Your task to perform on an android device: choose inbox layout in the gmail app Image 0: 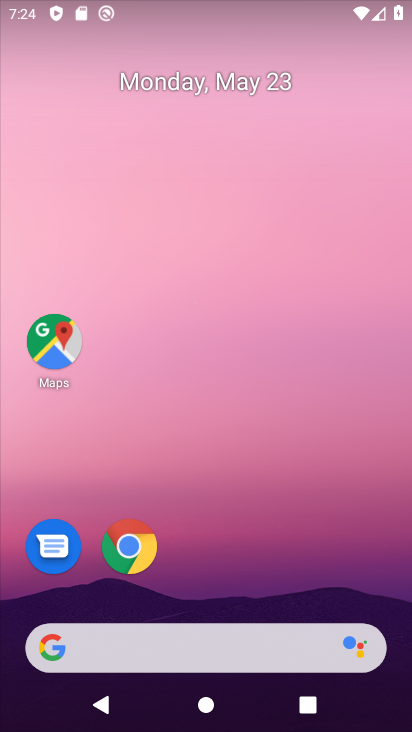
Step 0: drag from (367, 595) to (371, 186)
Your task to perform on an android device: choose inbox layout in the gmail app Image 1: 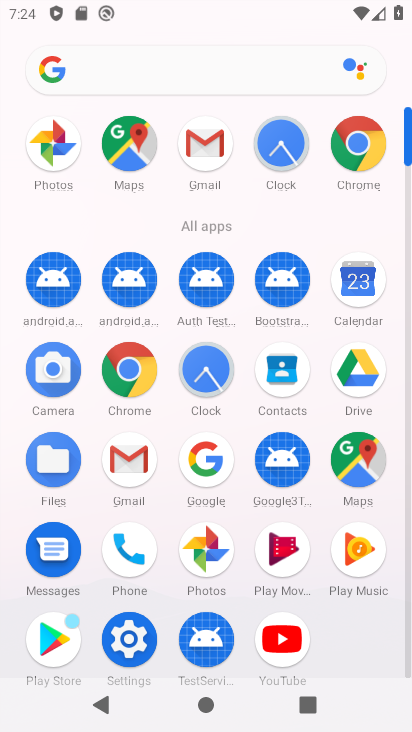
Step 1: click (138, 497)
Your task to perform on an android device: choose inbox layout in the gmail app Image 2: 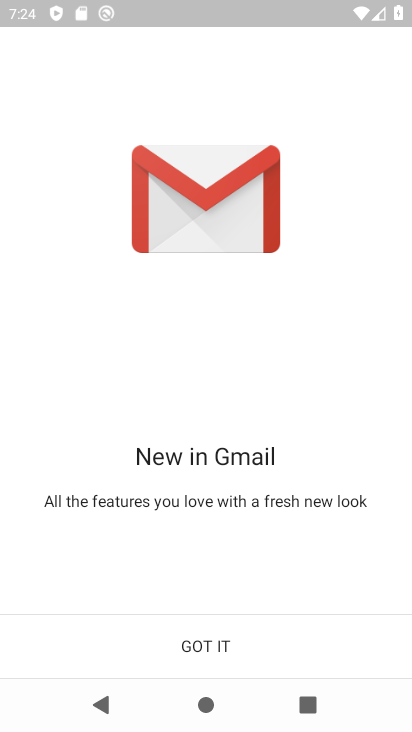
Step 2: click (241, 646)
Your task to perform on an android device: choose inbox layout in the gmail app Image 3: 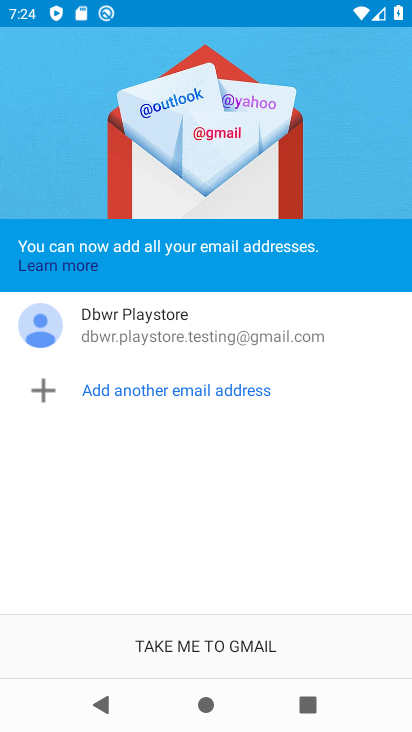
Step 3: click (241, 646)
Your task to perform on an android device: choose inbox layout in the gmail app Image 4: 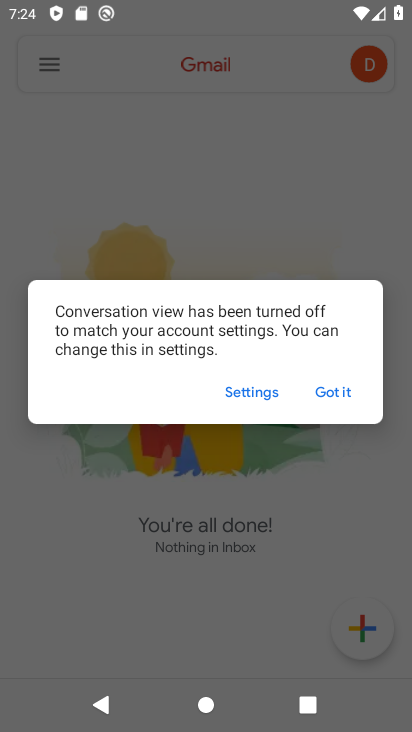
Step 4: click (334, 379)
Your task to perform on an android device: choose inbox layout in the gmail app Image 5: 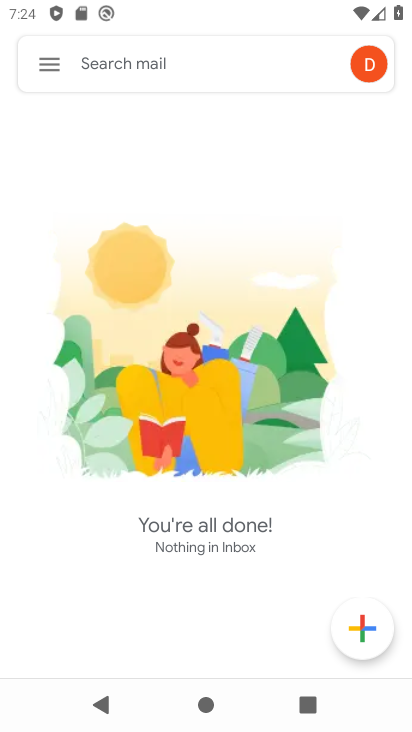
Step 5: click (48, 65)
Your task to perform on an android device: choose inbox layout in the gmail app Image 6: 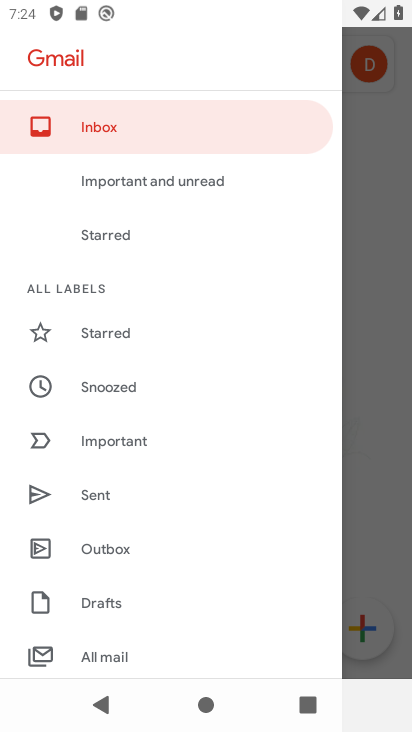
Step 6: drag from (281, 486) to (284, 401)
Your task to perform on an android device: choose inbox layout in the gmail app Image 7: 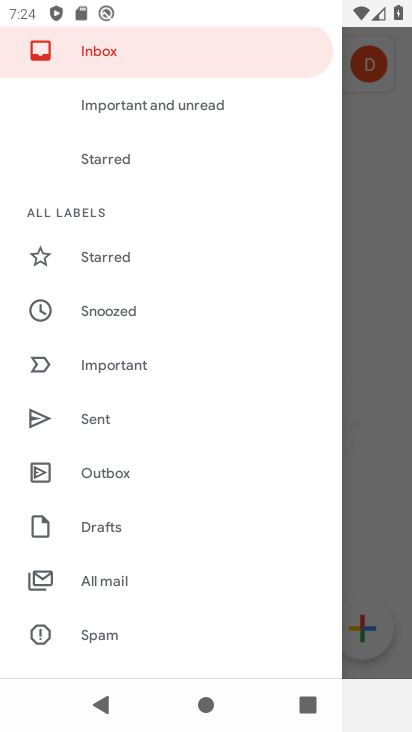
Step 7: drag from (288, 517) to (300, 407)
Your task to perform on an android device: choose inbox layout in the gmail app Image 8: 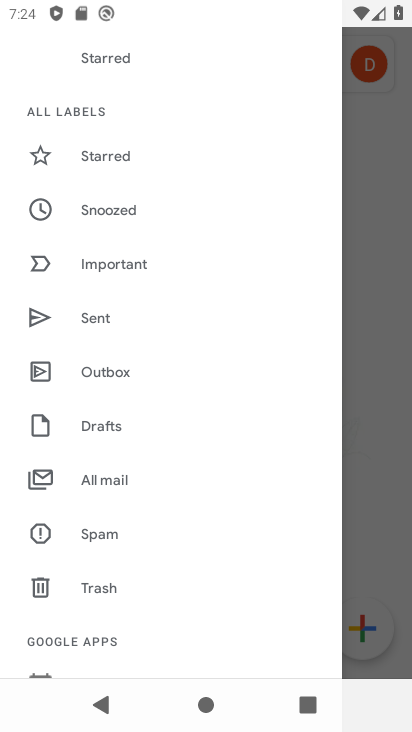
Step 8: drag from (289, 555) to (284, 455)
Your task to perform on an android device: choose inbox layout in the gmail app Image 9: 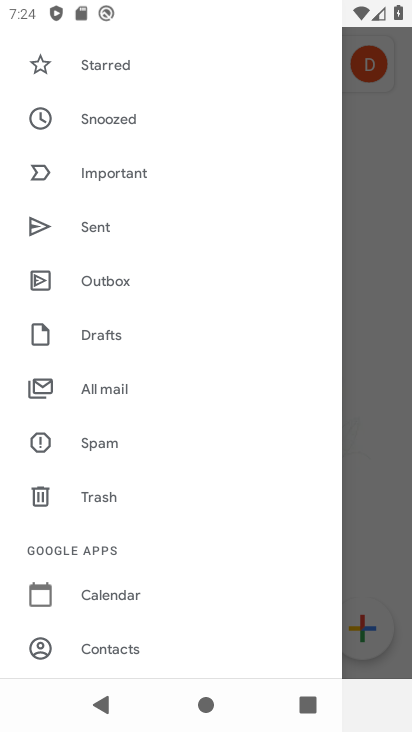
Step 9: drag from (299, 572) to (304, 453)
Your task to perform on an android device: choose inbox layout in the gmail app Image 10: 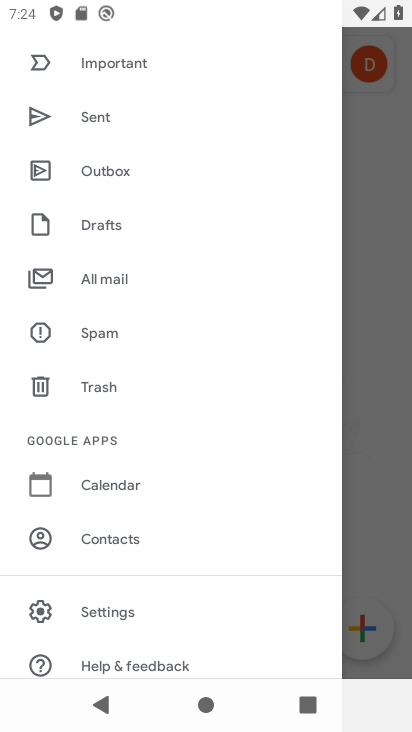
Step 10: drag from (291, 578) to (285, 451)
Your task to perform on an android device: choose inbox layout in the gmail app Image 11: 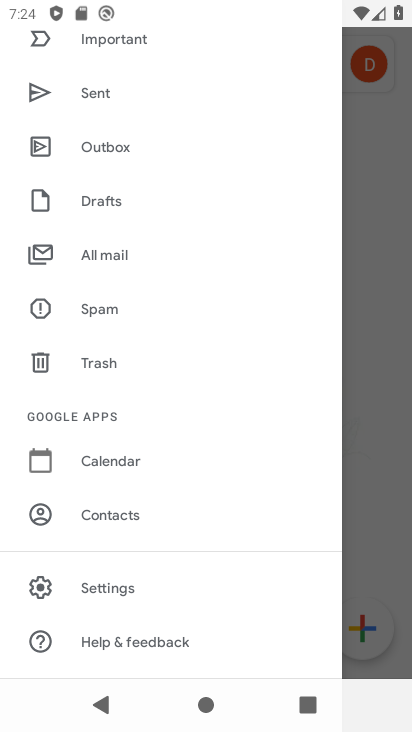
Step 11: click (136, 592)
Your task to perform on an android device: choose inbox layout in the gmail app Image 12: 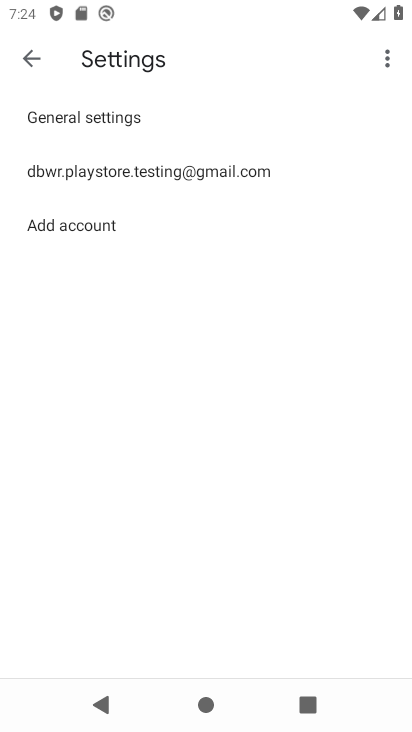
Step 12: click (268, 168)
Your task to perform on an android device: choose inbox layout in the gmail app Image 13: 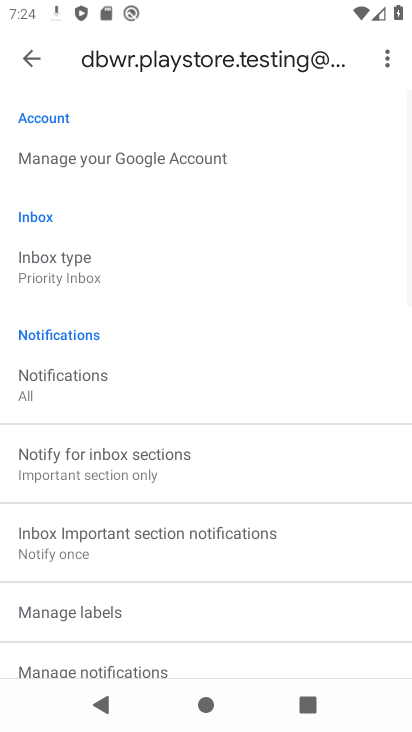
Step 13: drag from (323, 505) to (321, 415)
Your task to perform on an android device: choose inbox layout in the gmail app Image 14: 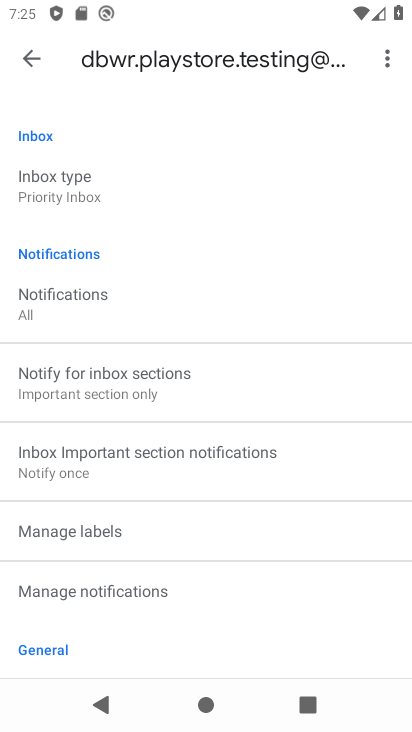
Step 14: drag from (351, 558) to (347, 449)
Your task to perform on an android device: choose inbox layout in the gmail app Image 15: 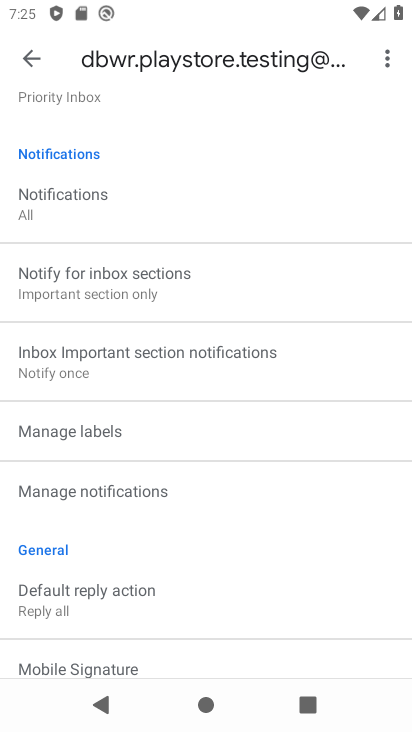
Step 15: drag from (359, 541) to (365, 450)
Your task to perform on an android device: choose inbox layout in the gmail app Image 16: 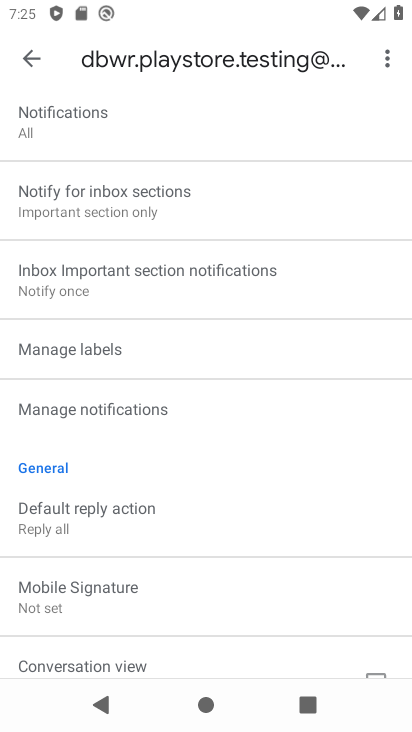
Step 16: drag from (350, 593) to (345, 488)
Your task to perform on an android device: choose inbox layout in the gmail app Image 17: 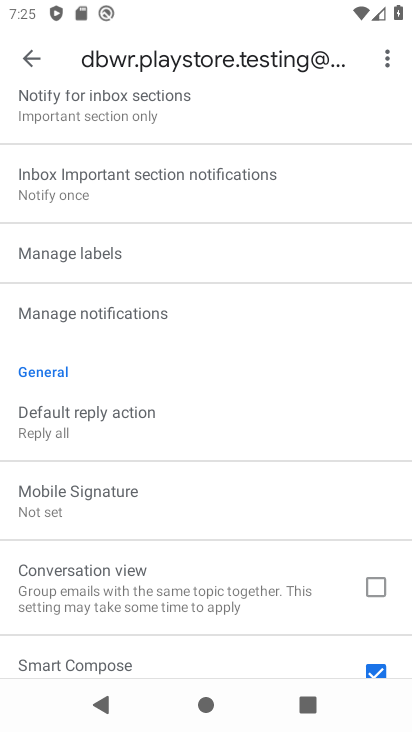
Step 17: drag from (340, 516) to (344, 448)
Your task to perform on an android device: choose inbox layout in the gmail app Image 18: 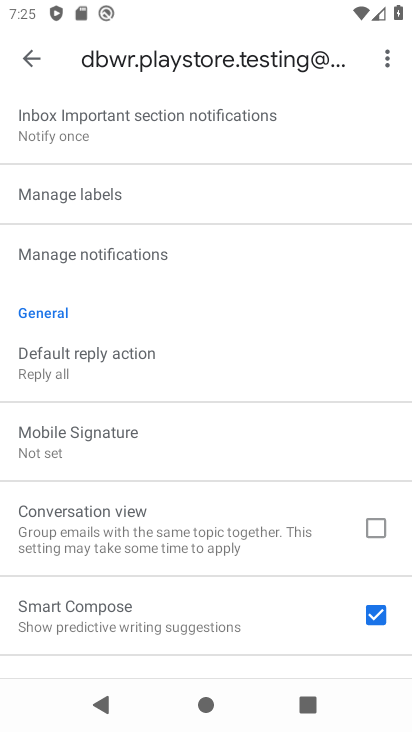
Step 18: drag from (301, 600) to (323, 456)
Your task to perform on an android device: choose inbox layout in the gmail app Image 19: 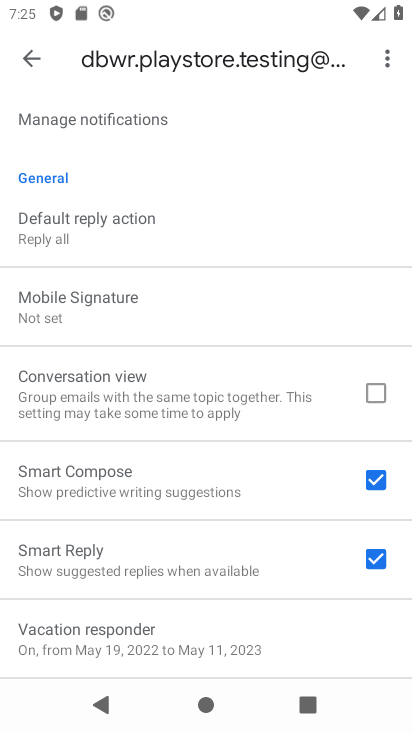
Step 19: drag from (316, 626) to (328, 466)
Your task to perform on an android device: choose inbox layout in the gmail app Image 20: 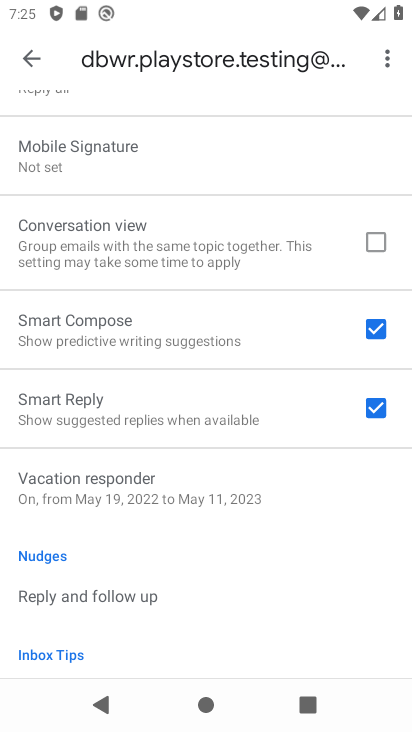
Step 20: drag from (324, 586) to (321, 453)
Your task to perform on an android device: choose inbox layout in the gmail app Image 21: 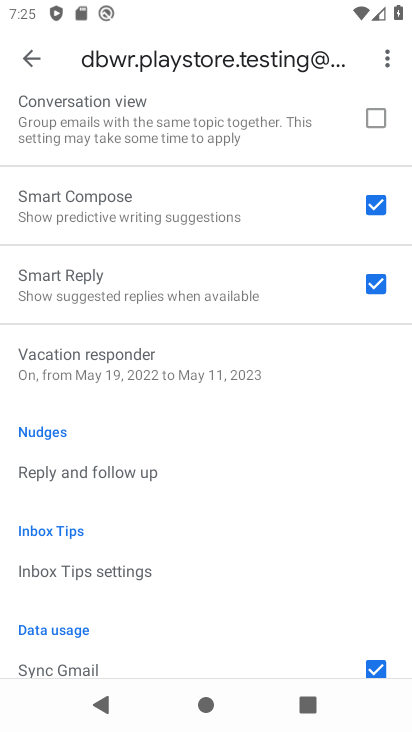
Step 21: drag from (336, 606) to (344, 376)
Your task to perform on an android device: choose inbox layout in the gmail app Image 22: 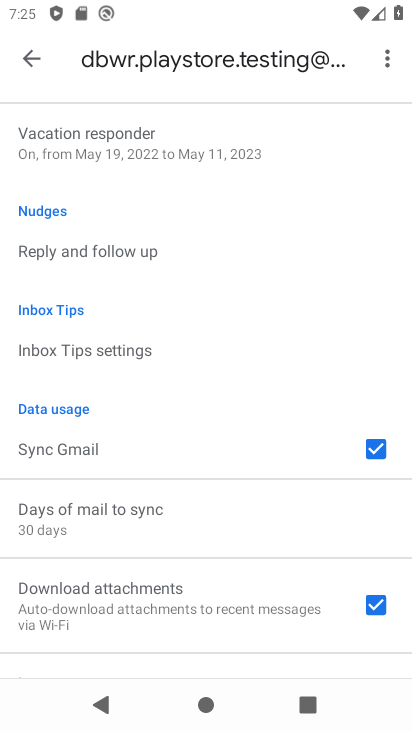
Step 22: drag from (341, 316) to (325, 429)
Your task to perform on an android device: choose inbox layout in the gmail app Image 23: 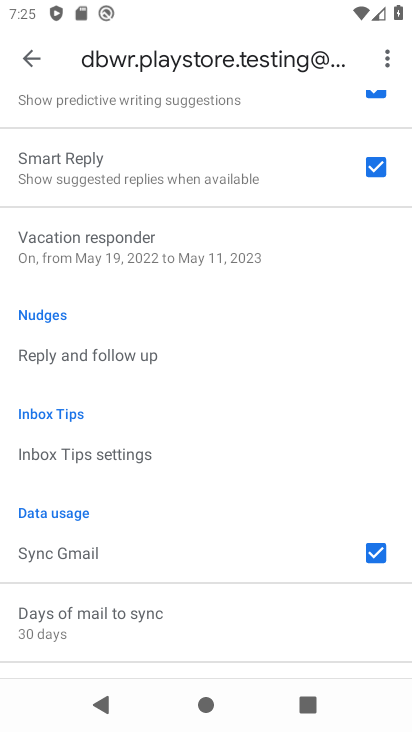
Step 23: drag from (322, 291) to (318, 419)
Your task to perform on an android device: choose inbox layout in the gmail app Image 24: 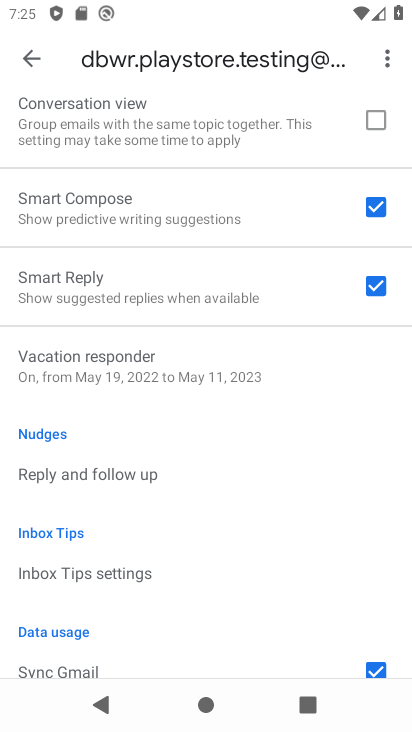
Step 24: drag from (311, 276) to (297, 428)
Your task to perform on an android device: choose inbox layout in the gmail app Image 25: 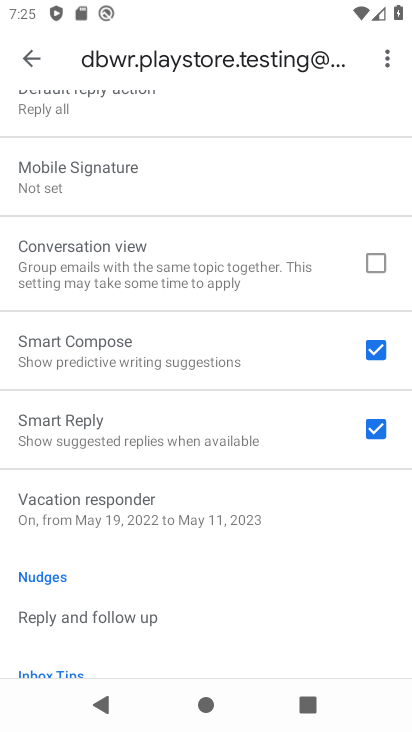
Step 25: drag from (310, 226) to (292, 394)
Your task to perform on an android device: choose inbox layout in the gmail app Image 26: 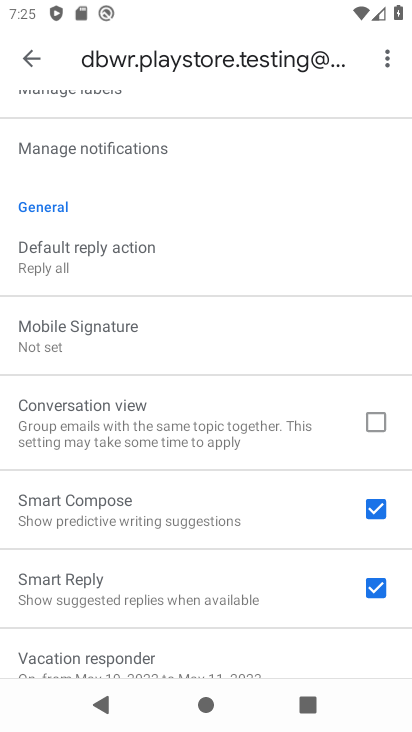
Step 26: drag from (301, 231) to (307, 356)
Your task to perform on an android device: choose inbox layout in the gmail app Image 27: 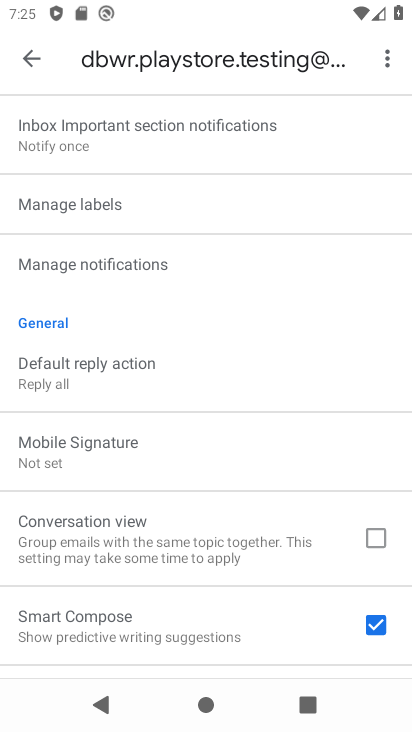
Step 27: drag from (302, 191) to (296, 333)
Your task to perform on an android device: choose inbox layout in the gmail app Image 28: 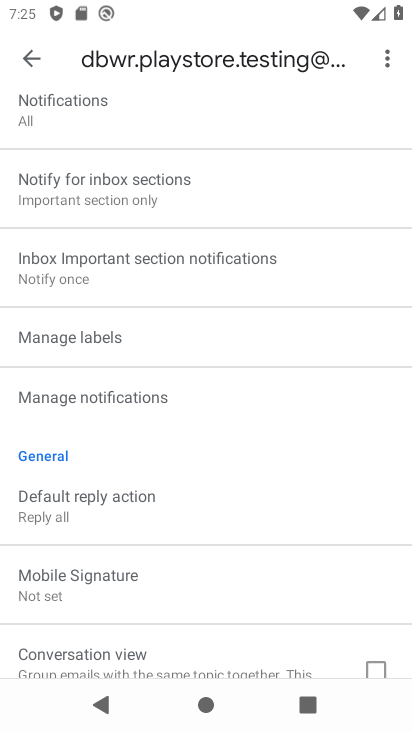
Step 28: drag from (305, 159) to (305, 300)
Your task to perform on an android device: choose inbox layout in the gmail app Image 29: 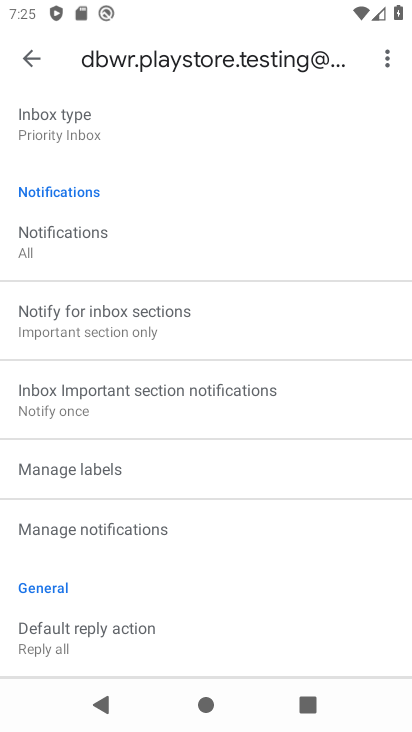
Step 29: drag from (297, 172) to (287, 339)
Your task to perform on an android device: choose inbox layout in the gmail app Image 30: 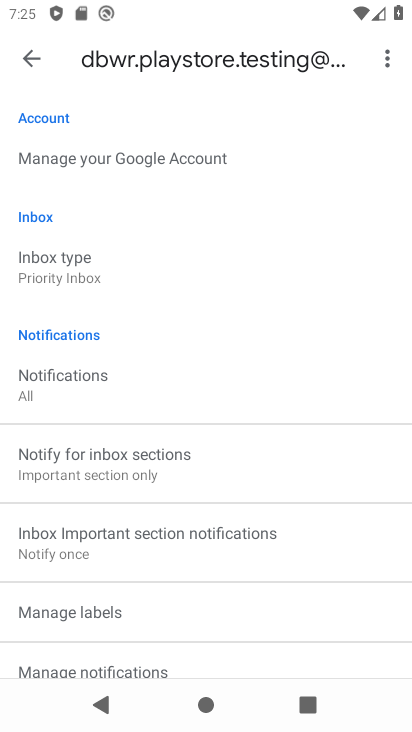
Step 30: click (87, 274)
Your task to perform on an android device: choose inbox layout in the gmail app Image 31: 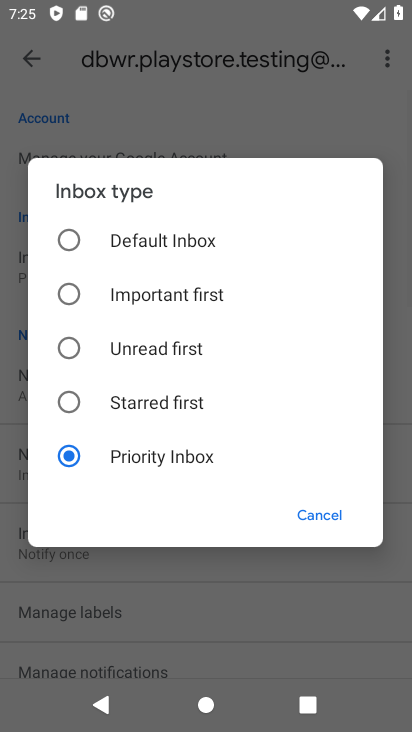
Step 31: click (166, 254)
Your task to perform on an android device: choose inbox layout in the gmail app Image 32: 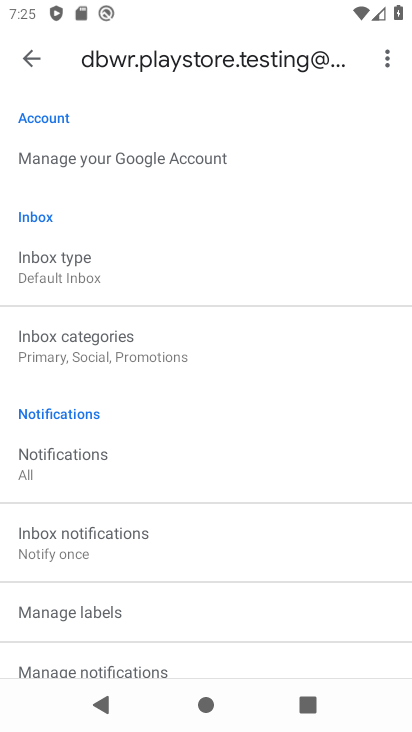
Step 32: task complete